Your task to perform on an android device: Open Youtube and go to "Your channel" Image 0: 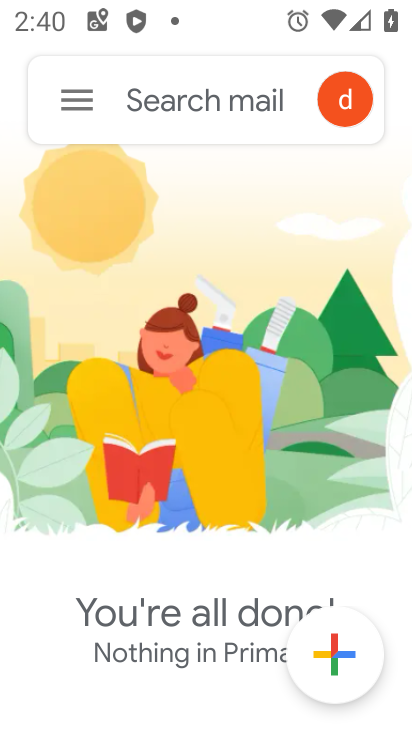
Step 0: press home button
Your task to perform on an android device: Open Youtube and go to "Your channel" Image 1: 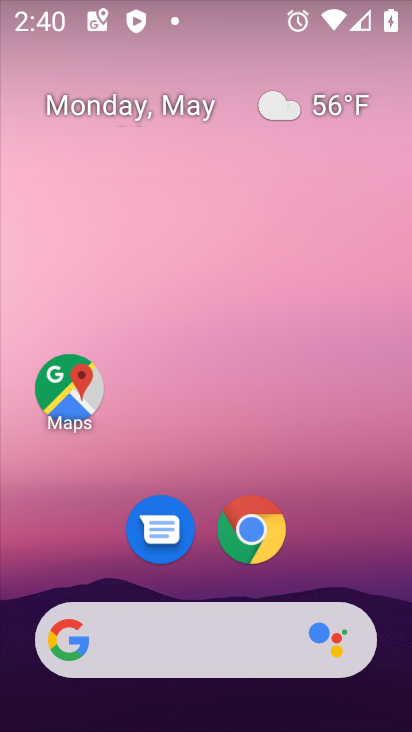
Step 1: drag from (313, 574) to (331, 126)
Your task to perform on an android device: Open Youtube and go to "Your channel" Image 2: 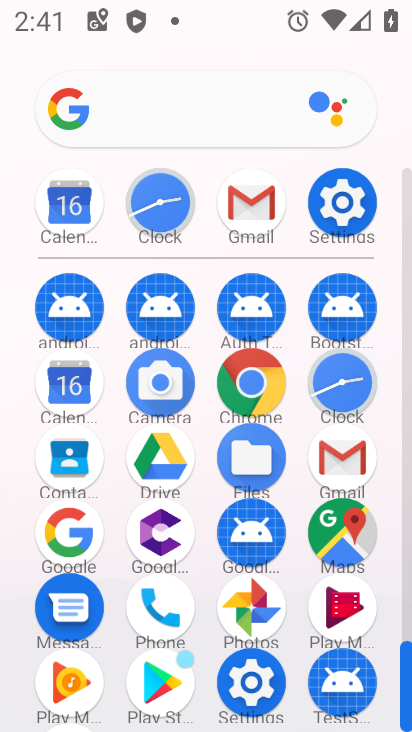
Step 2: drag from (200, 641) to (247, 416)
Your task to perform on an android device: Open Youtube and go to "Your channel" Image 3: 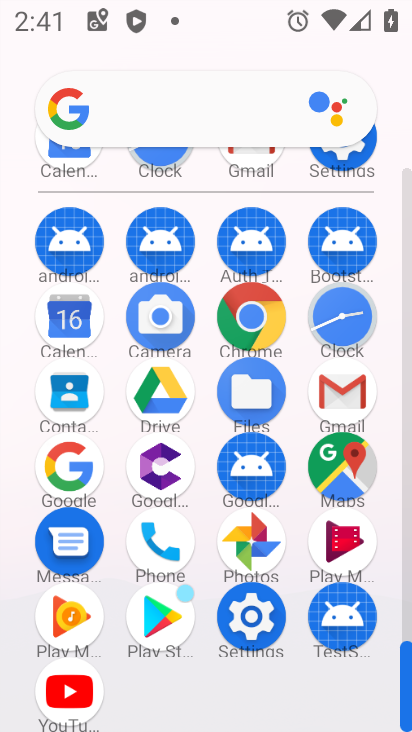
Step 3: click (54, 696)
Your task to perform on an android device: Open Youtube and go to "Your channel" Image 4: 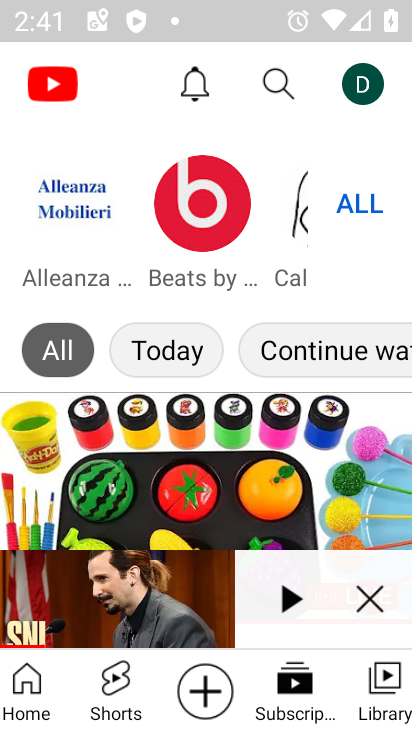
Step 4: click (358, 98)
Your task to perform on an android device: Open Youtube and go to "Your channel" Image 5: 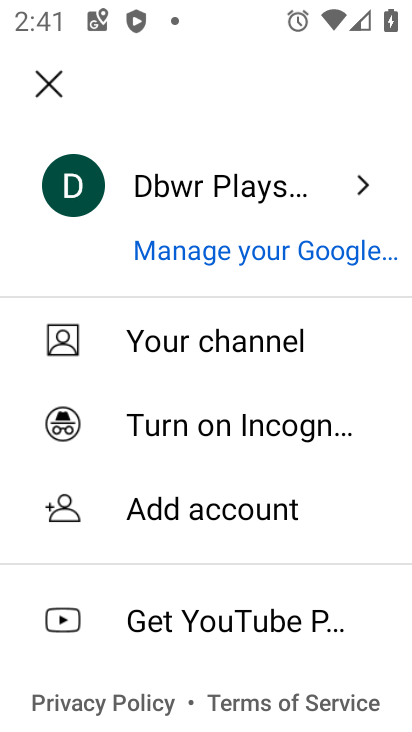
Step 5: click (199, 350)
Your task to perform on an android device: Open Youtube and go to "Your channel" Image 6: 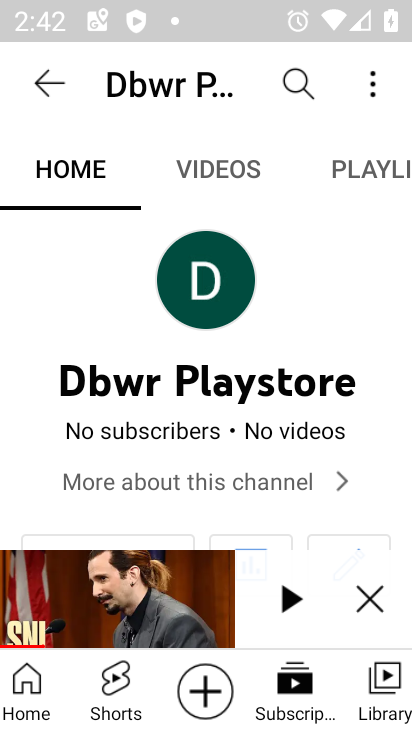
Step 6: task complete